Your task to perform on an android device: add a contact Image 0: 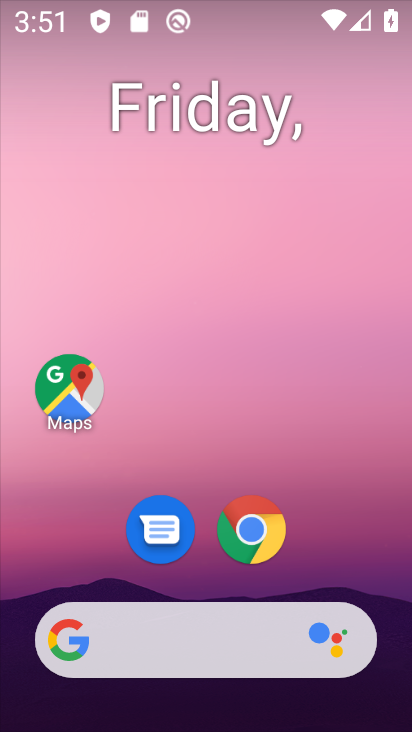
Step 0: drag from (82, 552) to (155, 152)
Your task to perform on an android device: add a contact Image 1: 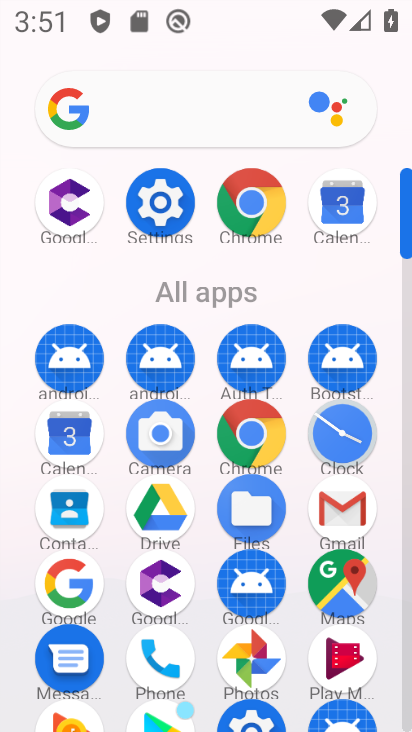
Step 1: click (79, 525)
Your task to perform on an android device: add a contact Image 2: 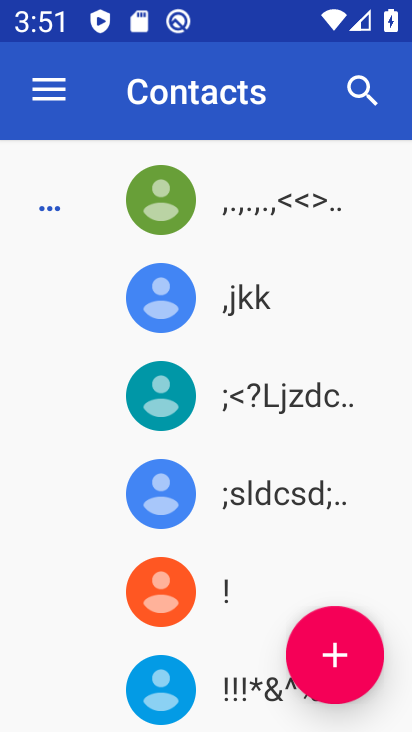
Step 2: click (323, 614)
Your task to perform on an android device: add a contact Image 3: 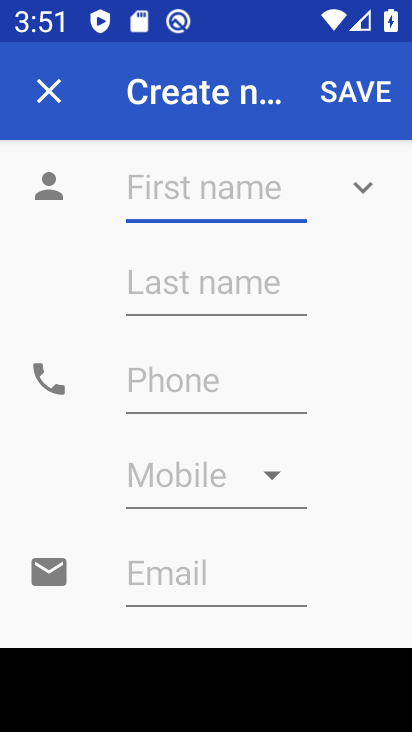
Step 3: type "ikkkkiii"
Your task to perform on an android device: add a contact Image 4: 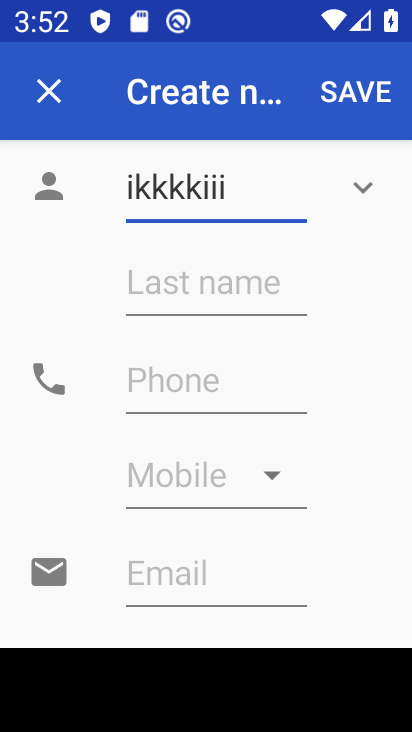
Step 4: click (176, 385)
Your task to perform on an android device: add a contact Image 5: 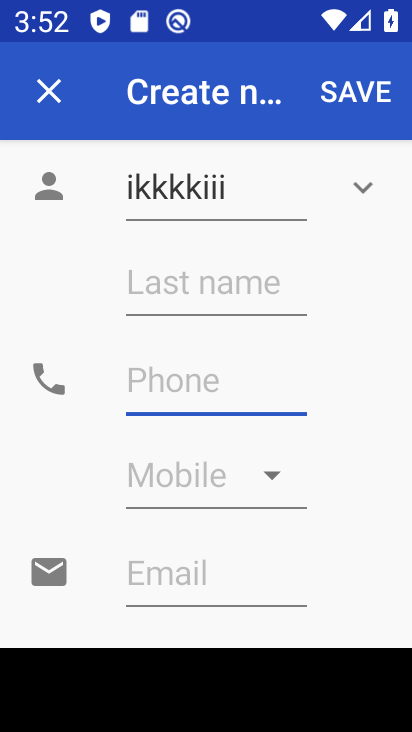
Step 5: type "455455343"
Your task to perform on an android device: add a contact Image 6: 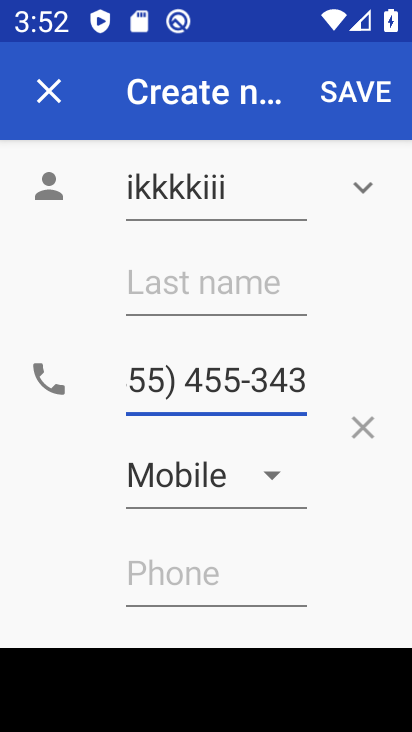
Step 6: click (391, 119)
Your task to perform on an android device: add a contact Image 7: 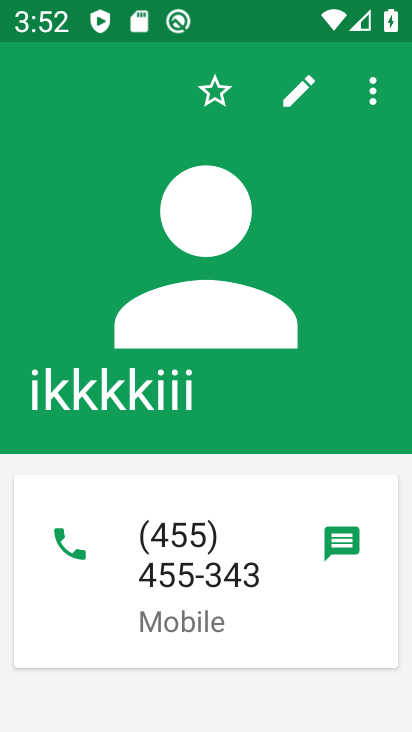
Step 7: task complete